Your task to perform on an android device: Go to accessibility settings Image 0: 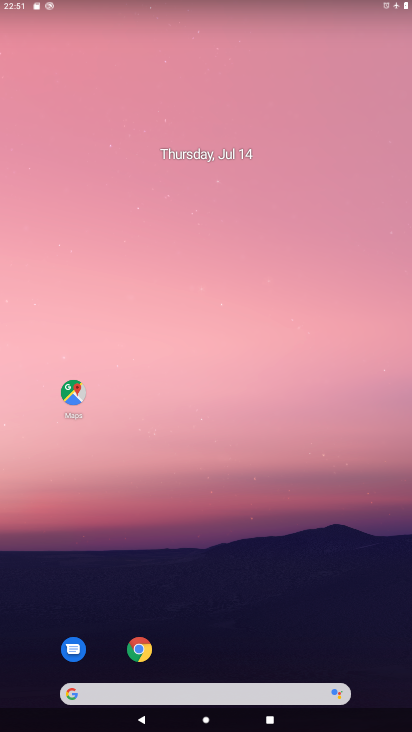
Step 0: drag from (160, 604) to (268, 7)
Your task to perform on an android device: Go to accessibility settings Image 1: 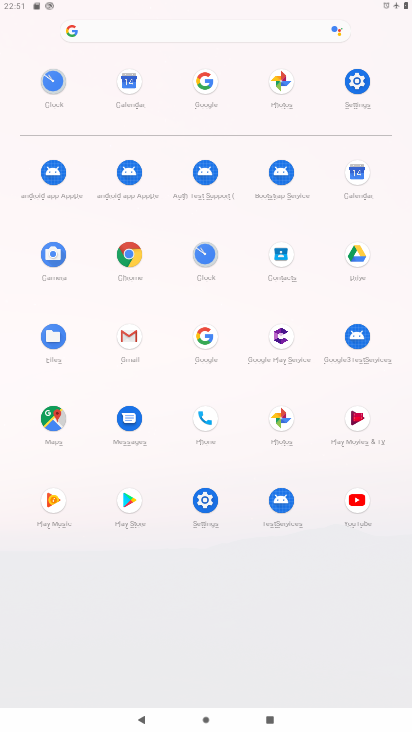
Step 1: click (360, 86)
Your task to perform on an android device: Go to accessibility settings Image 2: 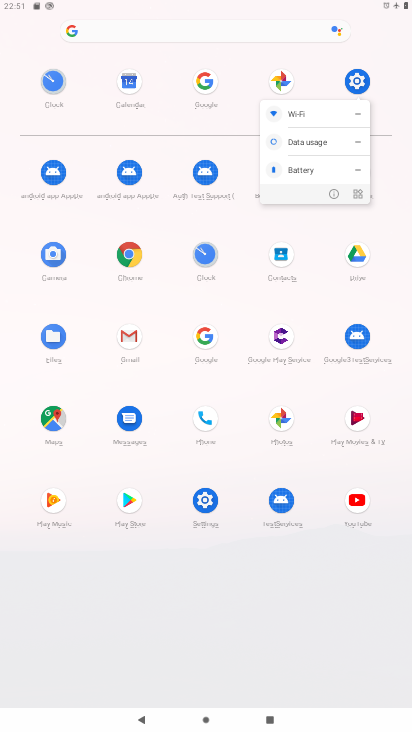
Step 2: click (359, 86)
Your task to perform on an android device: Go to accessibility settings Image 3: 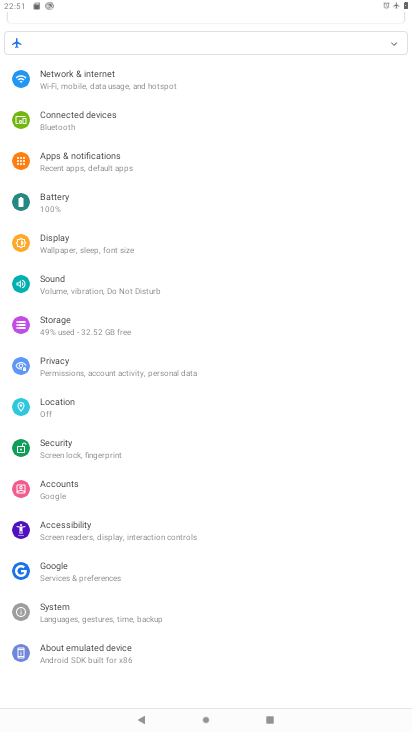
Step 3: click (92, 523)
Your task to perform on an android device: Go to accessibility settings Image 4: 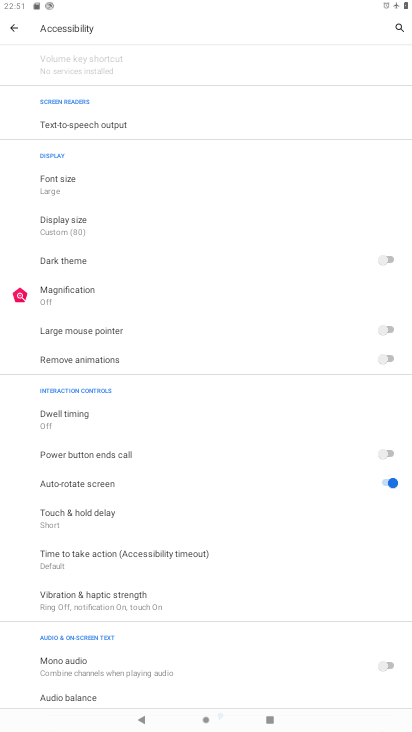
Step 4: task complete